Your task to perform on an android device: toggle wifi Image 0: 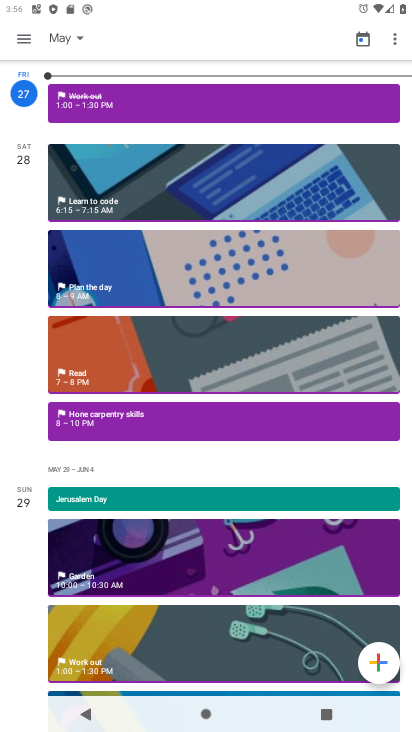
Step 0: press home button
Your task to perform on an android device: toggle wifi Image 1: 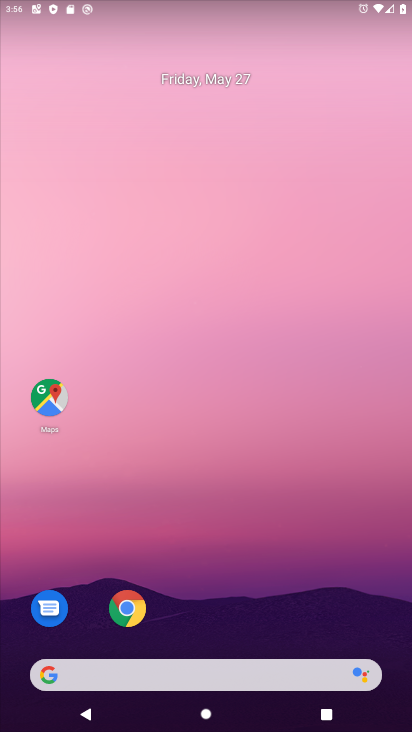
Step 1: drag from (247, 633) to (263, 223)
Your task to perform on an android device: toggle wifi Image 2: 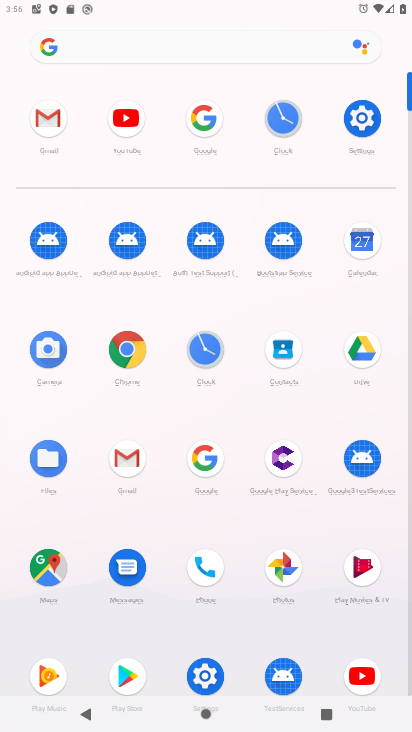
Step 2: click (345, 121)
Your task to perform on an android device: toggle wifi Image 3: 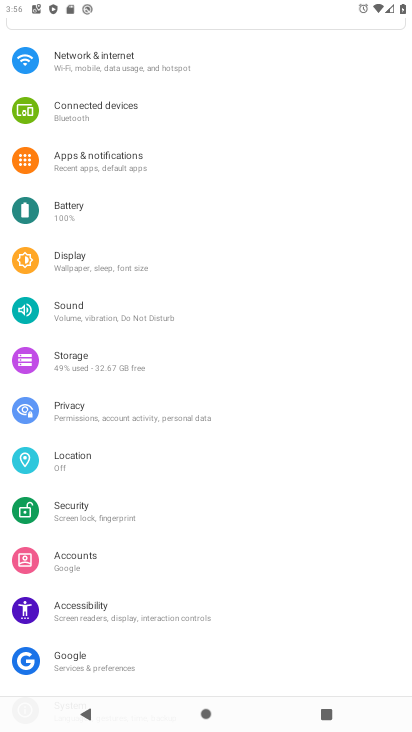
Step 3: click (108, 60)
Your task to perform on an android device: toggle wifi Image 4: 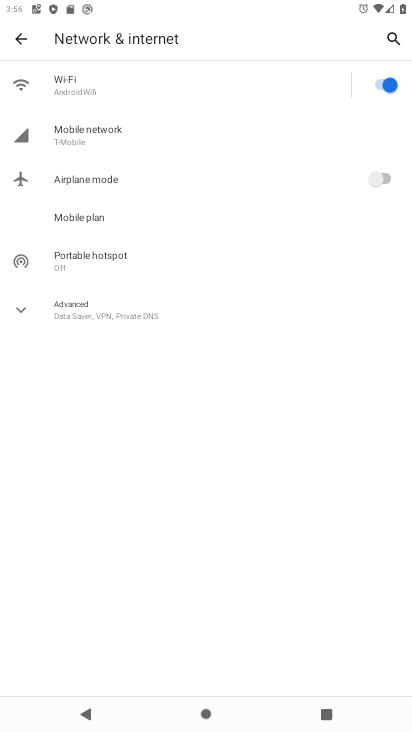
Step 4: click (376, 84)
Your task to perform on an android device: toggle wifi Image 5: 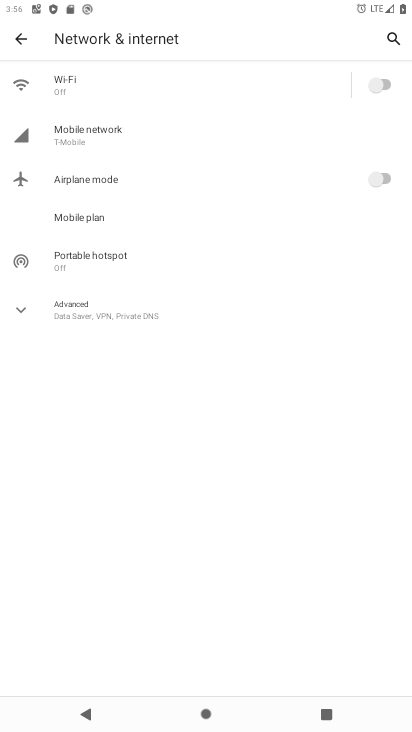
Step 5: task complete